Your task to perform on an android device: Turn on the flashlight Image 0: 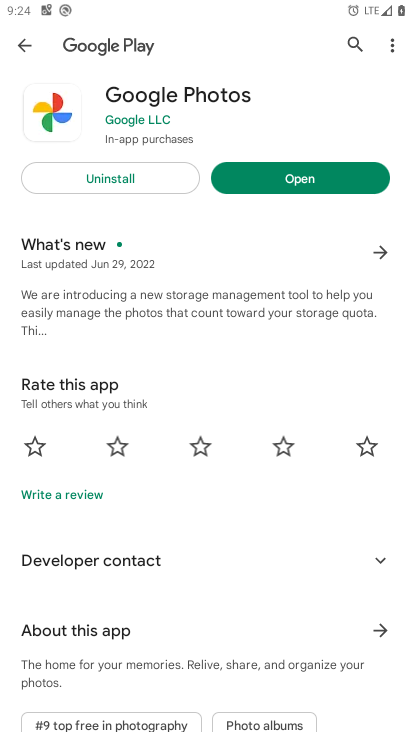
Step 0: press home button
Your task to perform on an android device: Turn on the flashlight Image 1: 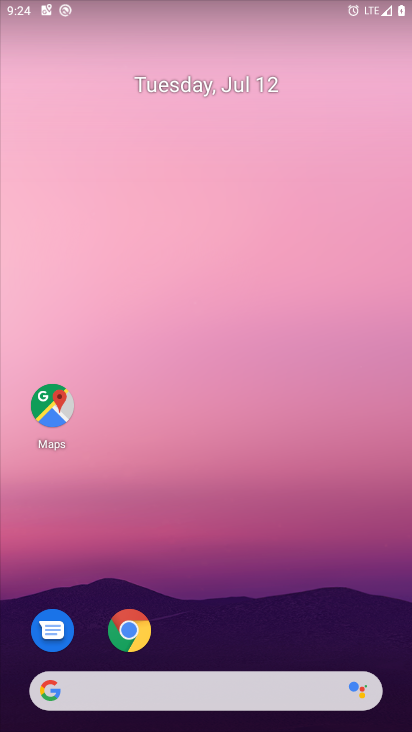
Step 1: task complete